Your task to perform on an android device: change alarm snooze length Image 0: 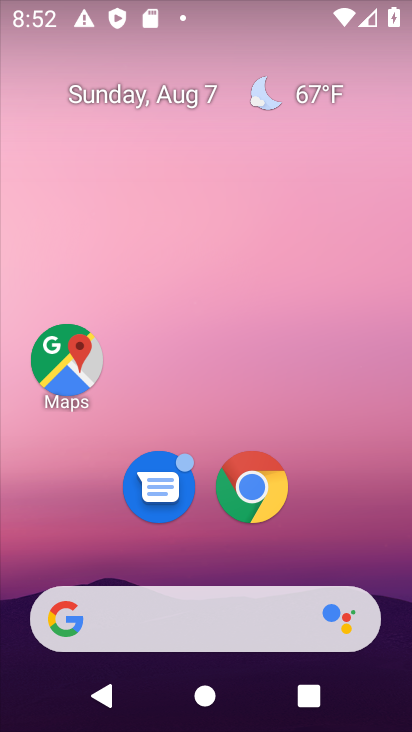
Step 0: drag from (386, 675) to (348, 98)
Your task to perform on an android device: change alarm snooze length Image 1: 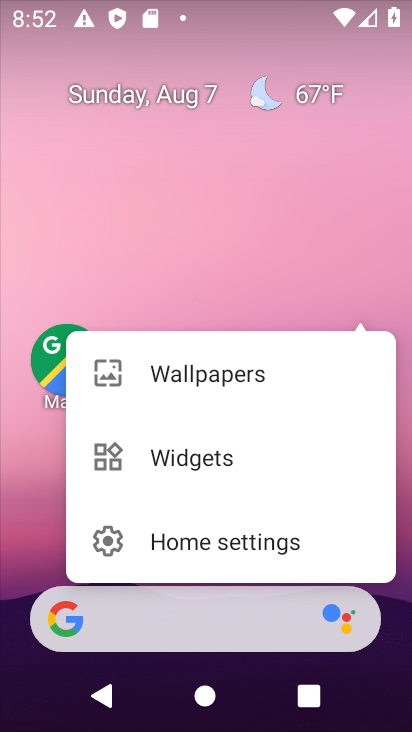
Step 1: press back button
Your task to perform on an android device: change alarm snooze length Image 2: 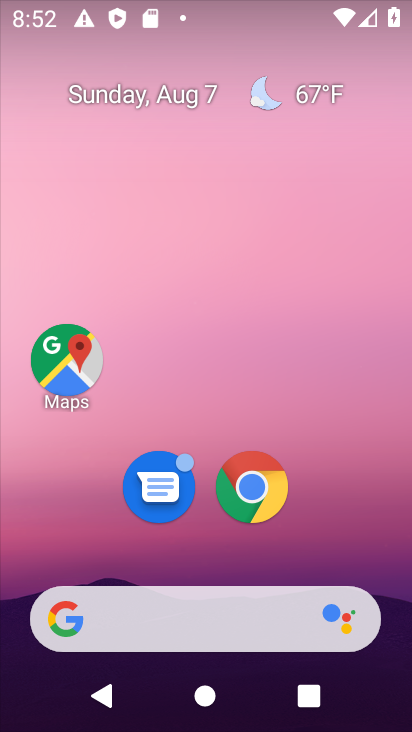
Step 2: drag from (398, 649) to (346, 178)
Your task to perform on an android device: change alarm snooze length Image 3: 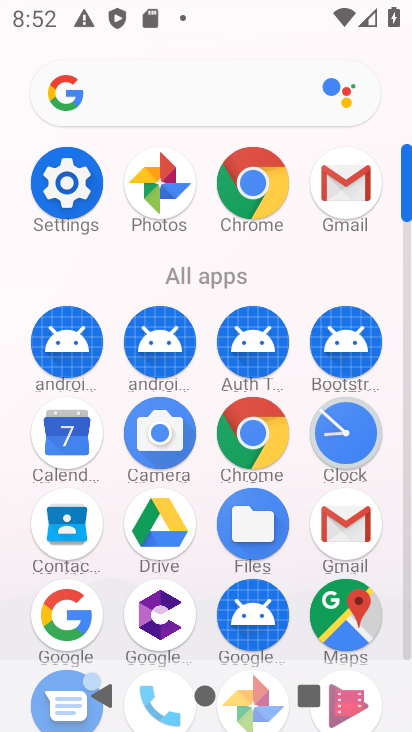
Step 3: click (46, 188)
Your task to perform on an android device: change alarm snooze length Image 4: 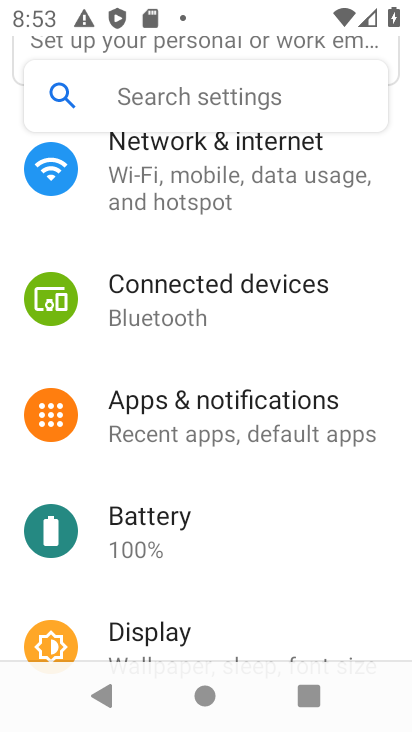
Step 4: press home button
Your task to perform on an android device: change alarm snooze length Image 5: 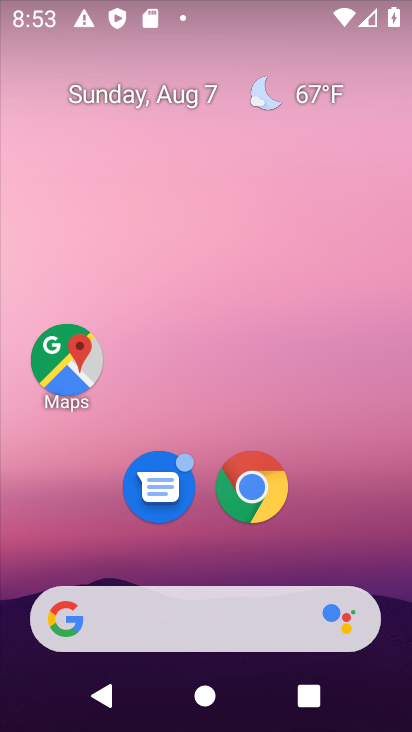
Step 5: drag from (386, 628) to (319, 153)
Your task to perform on an android device: change alarm snooze length Image 6: 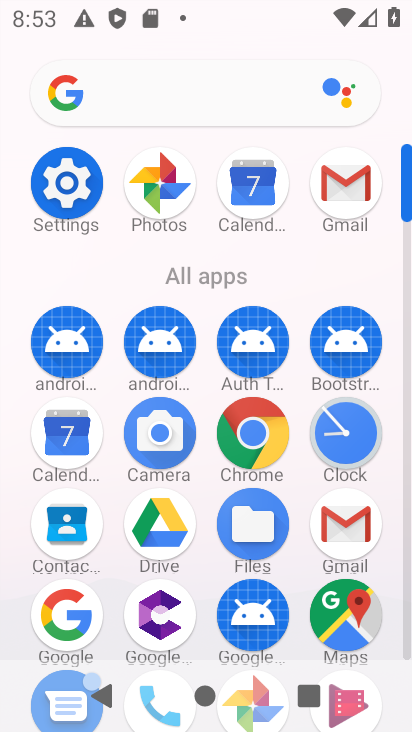
Step 6: click (342, 430)
Your task to perform on an android device: change alarm snooze length Image 7: 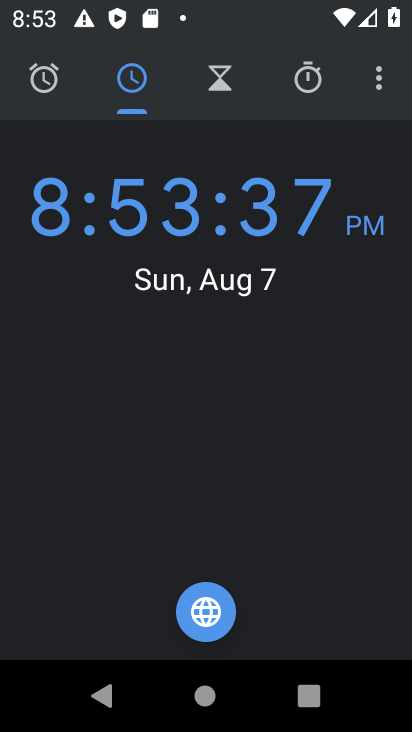
Step 7: click (378, 78)
Your task to perform on an android device: change alarm snooze length Image 8: 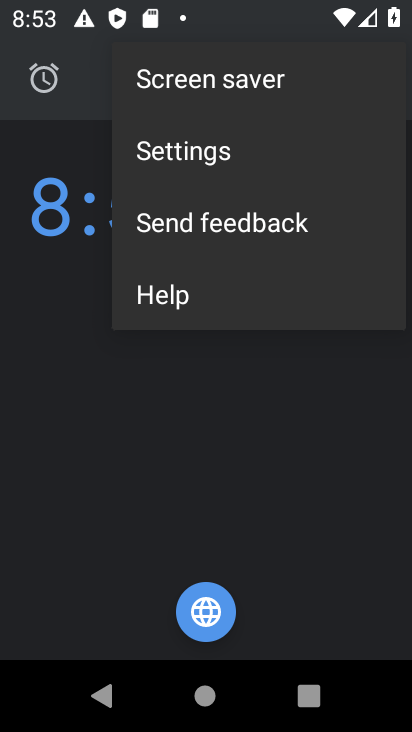
Step 8: click (178, 154)
Your task to perform on an android device: change alarm snooze length Image 9: 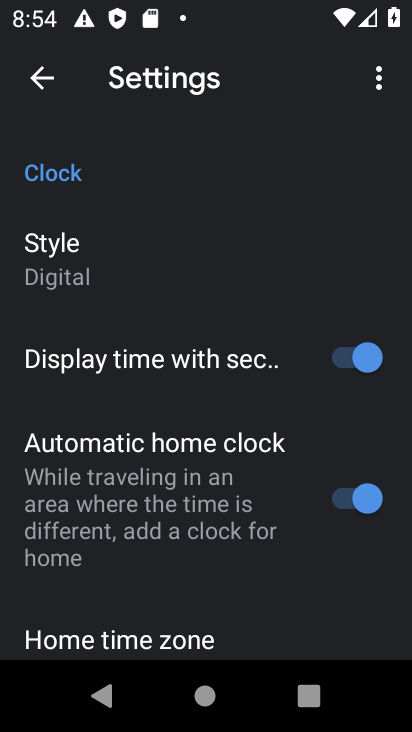
Step 9: drag from (288, 623) to (234, 283)
Your task to perform on an android device: change alarm snooze length Image 10: 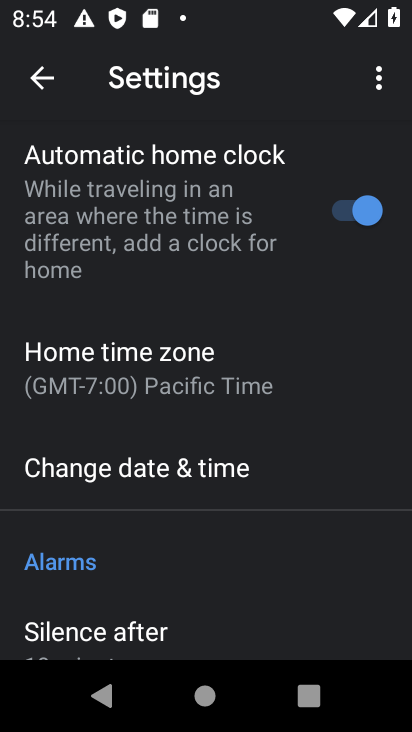
Step 10: drag from (253, 612) to (251, 274)
Your task to perform on an android device: change alarm snooze length Image 11: 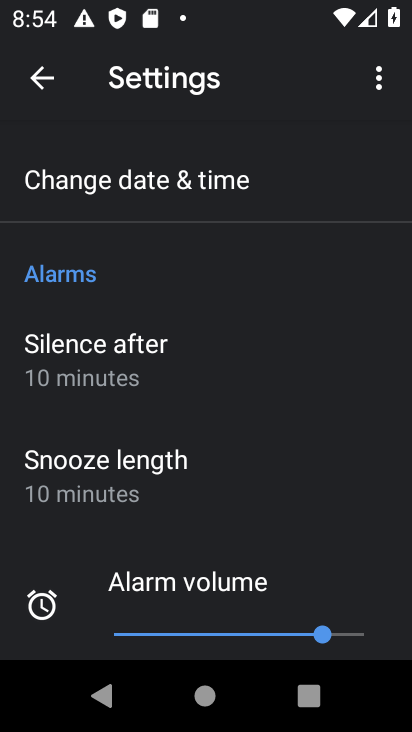
Step 11: click (88, 482)
Your task to perform on an android device: change alarm snooze length Image 12: 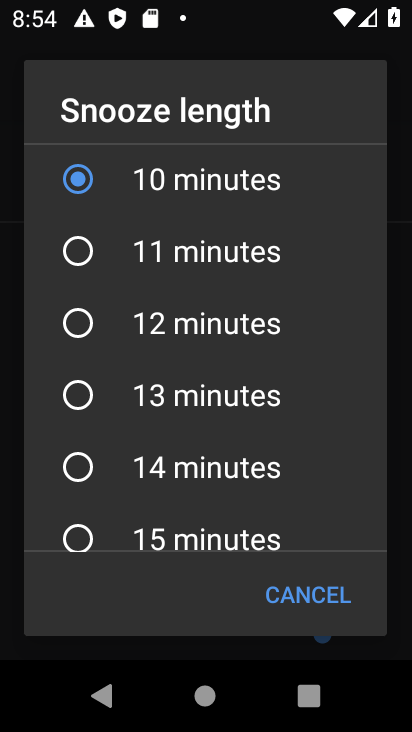
Step 12: click (81, 255)
Your task to perform on an android device: change alarm snooze length Image 13: 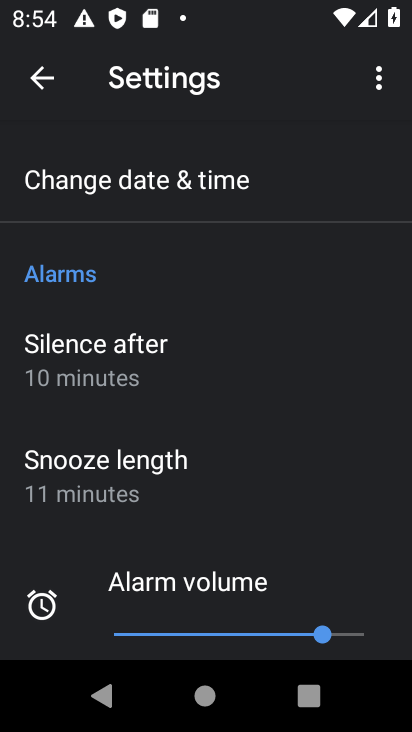
Step 13: task complete